Your task to perform on an android device: toggle data saver in the chrome app Image 0: 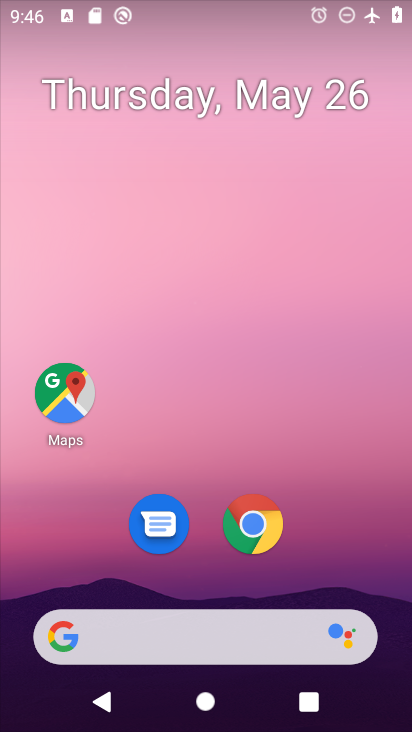
Step 0: click (258, 526)
Your task to perform on an android device: toggle data saver in the chrome app Image 1: 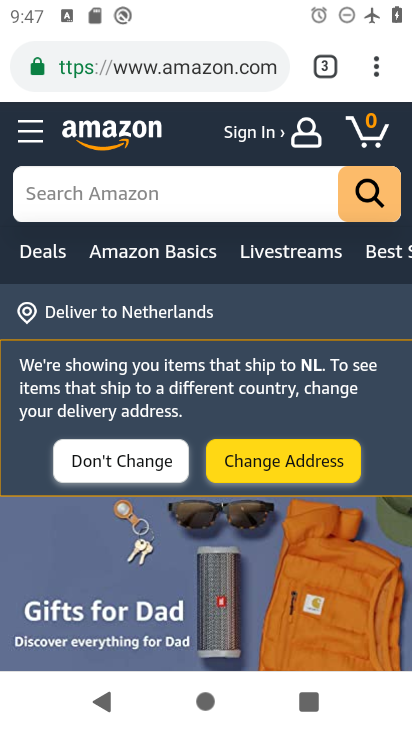
Step 1: click (376, 59)
Your task to perform on an android device: toggle data saver in the chrome app Image 2: 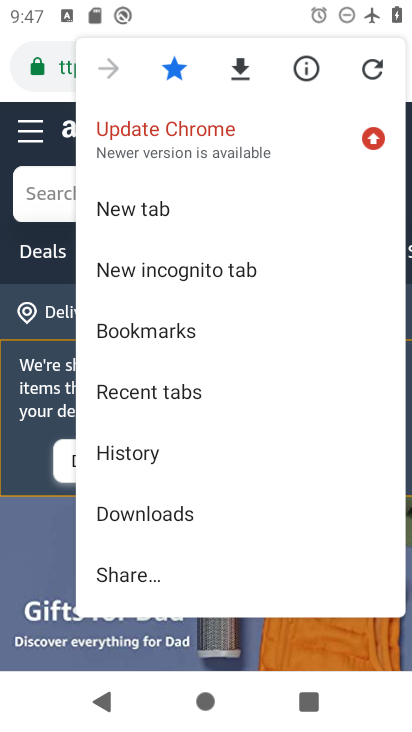
Step 2: drag from (245, 443) to (269, 113)
Your task to perform on an android device: toggle data saver in the chrome app Image 3: 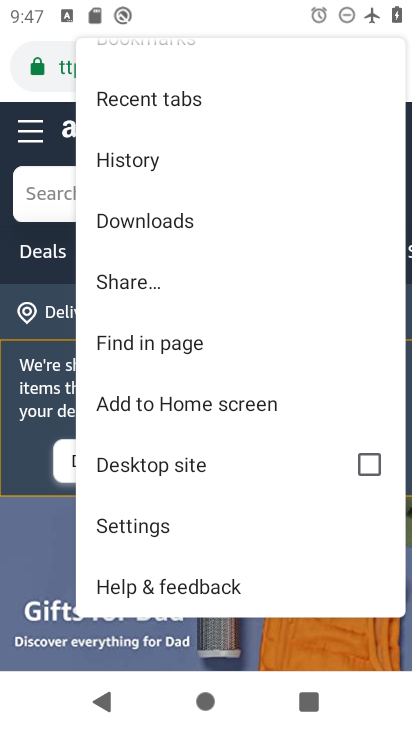
Step 3: click (186, 520)
Your task to perform on an android device: toggle data saver in the chrome app Image 4: 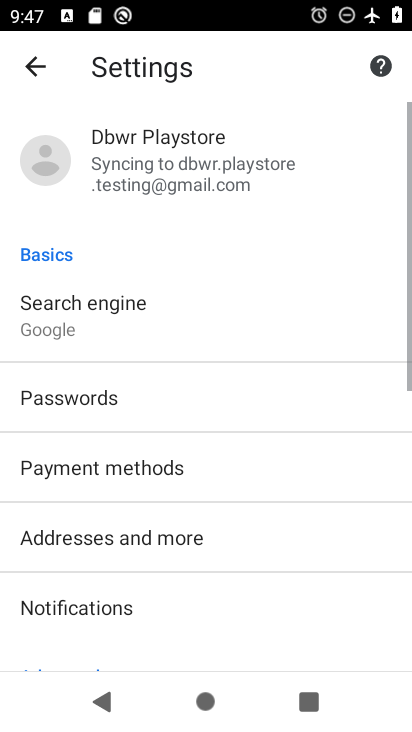
Step 4: drag from (215, 523) to (267, 94)
Your task to perform on an android device: toggle data saver in the chrome app Image 5: 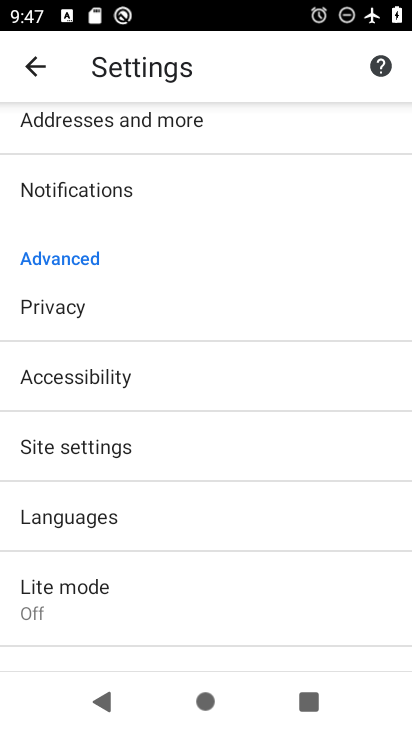
Step 5: click (130, 611)
Your task to perform on an android device: toggle data saver in the chrome app Image 6: 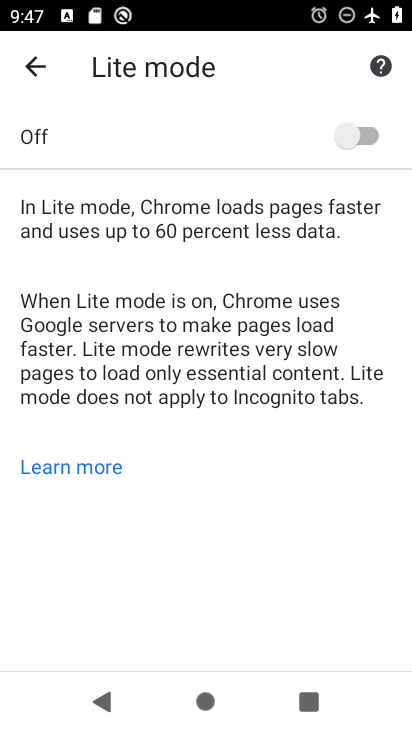
Step 6: click (363, 128)
Your task to perform on an android device: toggle data saver in the chrome app Image 7: 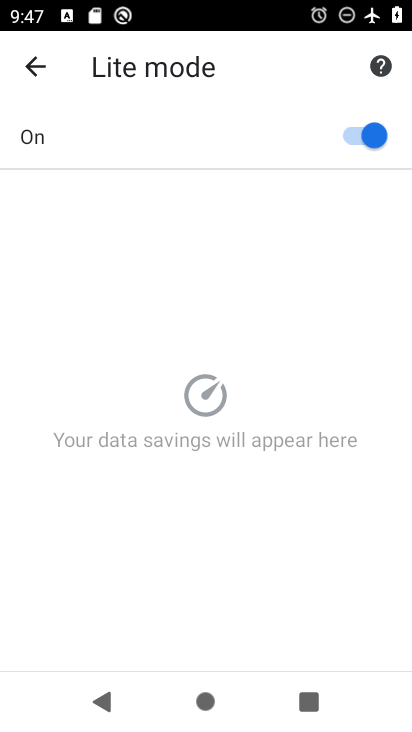
Step 7: task complete